Your task to perform on an android device: Go to eBay Image 0: 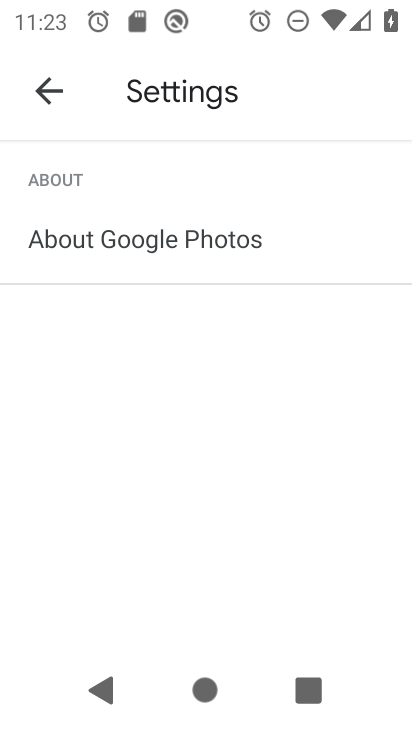
Step 0: press back button
Your task to perform on an android device: Go to eBay Image 1: 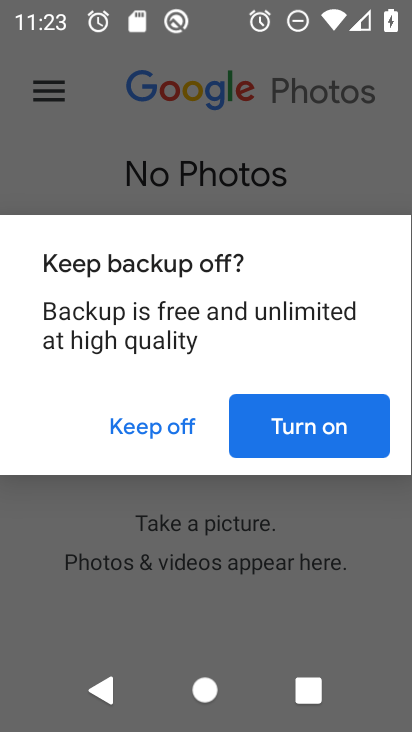
Step 1: press home button
Your task to perform on an android device: Go to eBay Image 2: 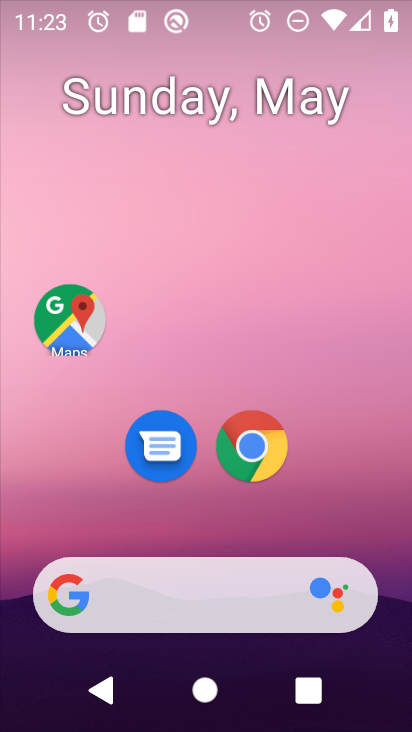
Step 2: drag from (350, 521) to (255, 16)
Your task to perform on an android device: Go to eBay Image 3: 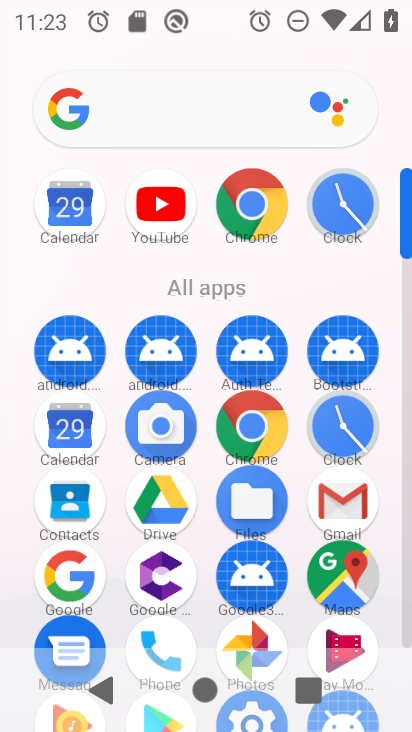
Step 3: drag from (12, 524) to (20, 250)
Your task to perform on an android device: Go to eBay Image 4: 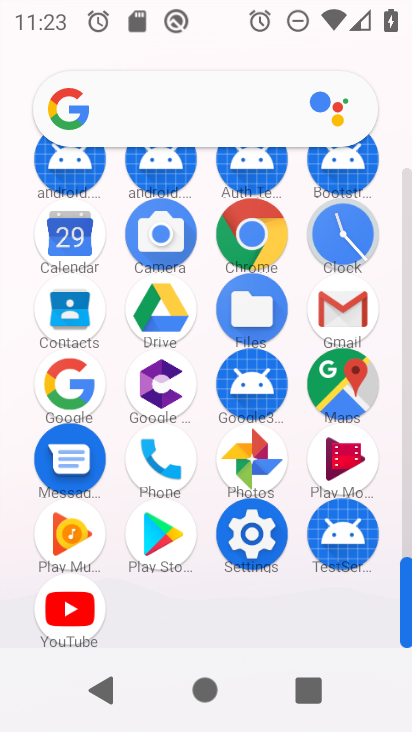
Step 4: click (253, 238)
Your task to perform on an android device: Go to eBay Image 5: 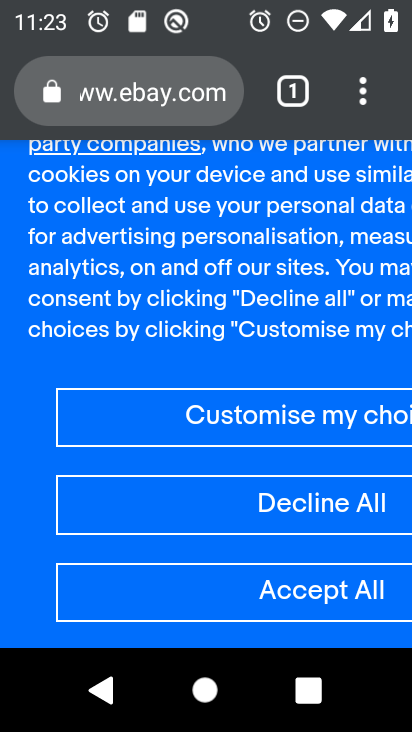
Step 5: click (148, 84)
Your task to perform on an android device: Go to eBay Image 6: 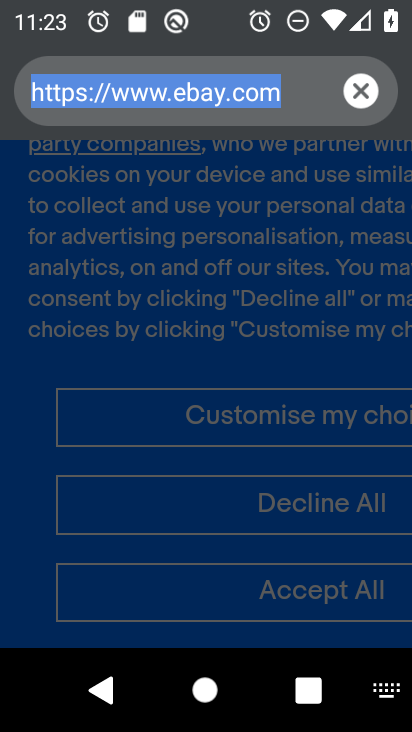
Step 6: click (352, 90)
Your task to perform on an android device: Go to eBay Image 7: 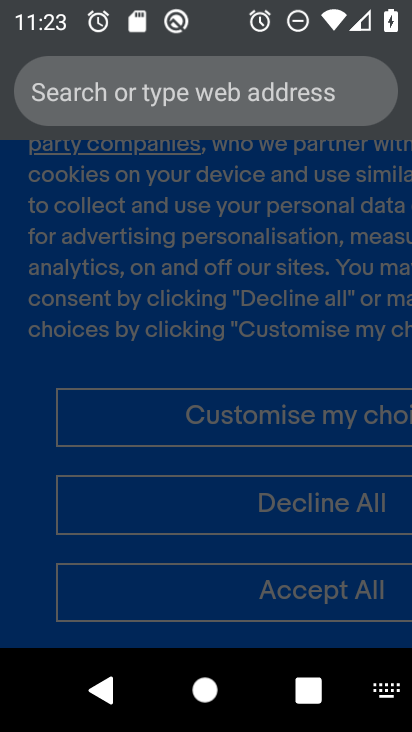
Step 7: click (178, 333)
Your task to perform on an android device: Go to eBay Image 8: 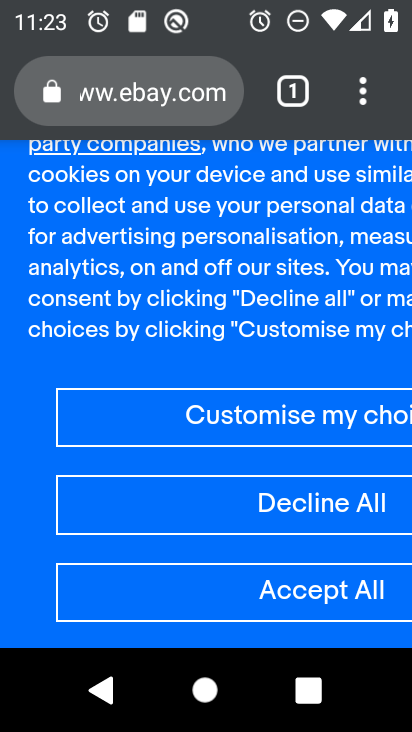
Step 8: task complete